Your task to perform on an android device: Go to accessibility settings Image 0: 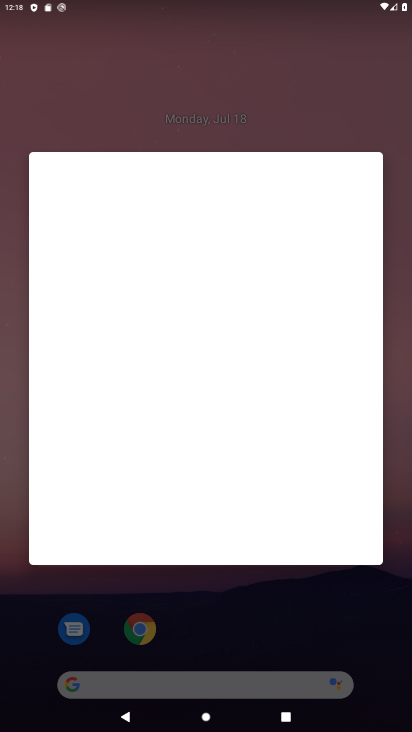
Step 0: press home button
Your task to perform on an android device: Go to accessibility settings Image 1: 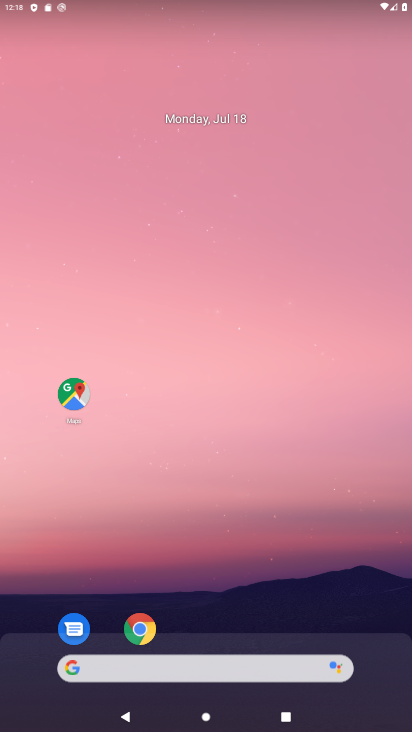
Step 1: drag from (237, 584) to (118, 49)
Your task to perform on an android device: Go to accessibility settings Image 2: 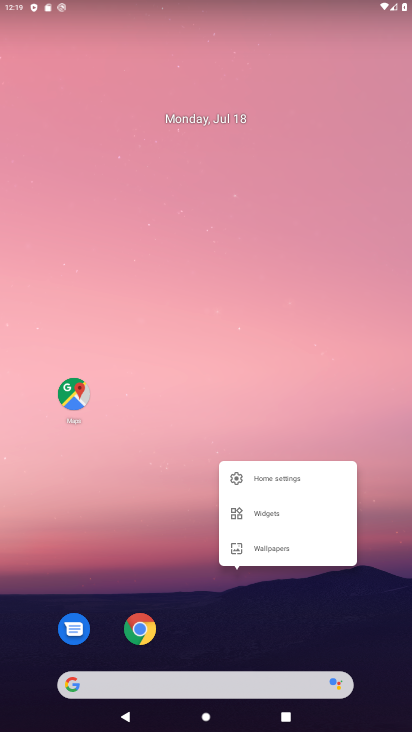
Step 2: click (145, 579)
Your task to perform on an android device: Go to accessibility settings Image 3: 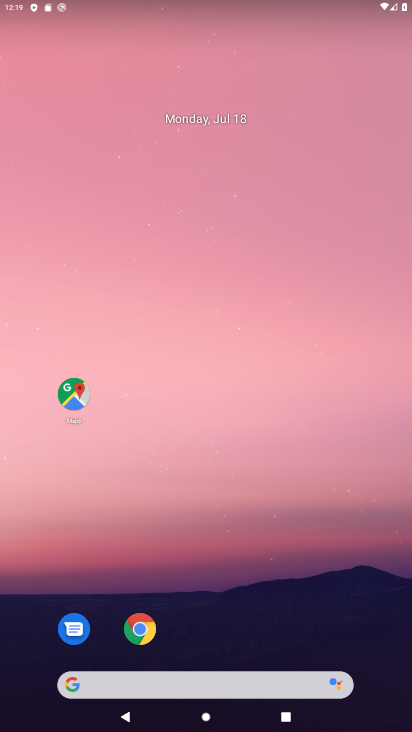
Step 3: drag from (226, 587) to (155, 140)
Your task to perform on an android device: Go to accessibility settings Image 4: 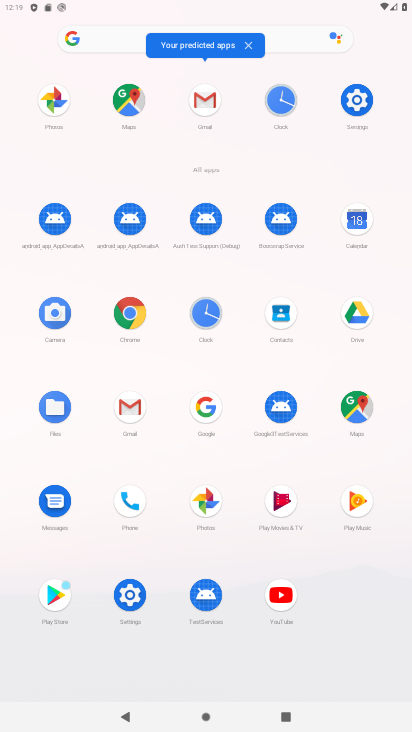
Step 4: click (358, 105)
Your task to perform on an android device: Go to accessibility settings Image 5: 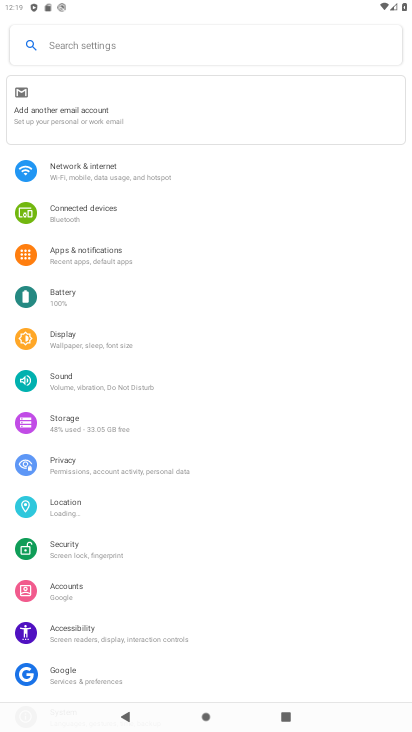
Step 5: click (79, 633)
Your task to perform on an android device: Go to accessibility settings Image 6: 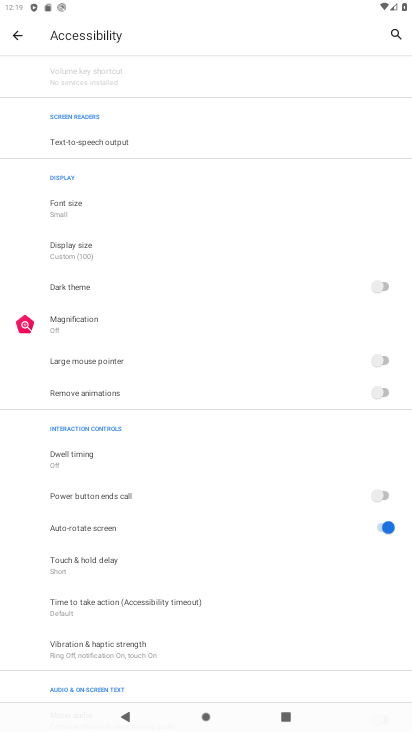
Step 6: task complete